Your task to perform on an android device: Search for Mexican restaurants on Maps Image 0: 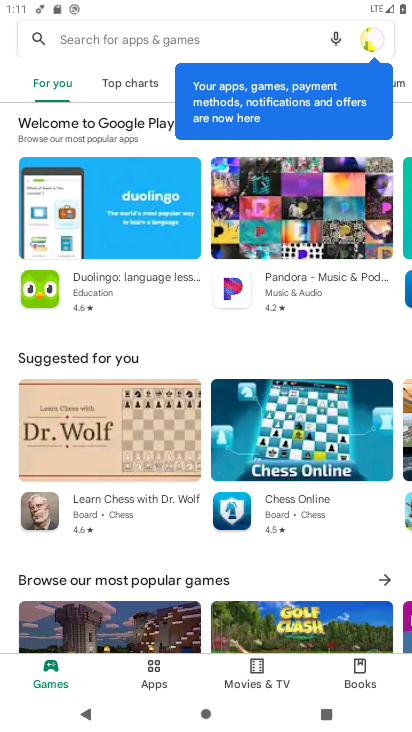
Step 0: press home button
Your task to perform on an android device: Search for Mexican restaurants on Maps Image 1: 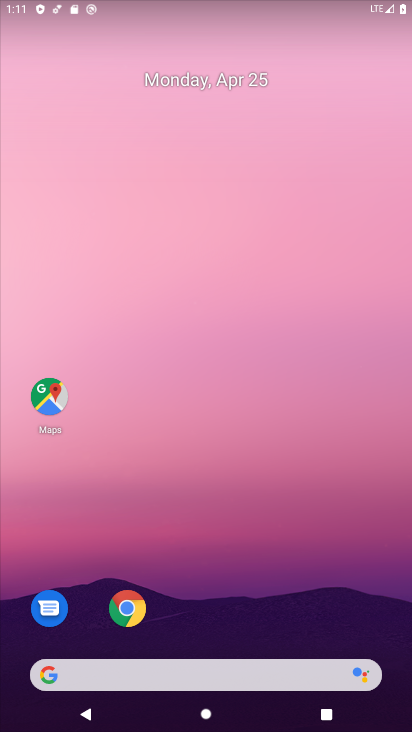
Step 1: click (37, 403)
Your task to perform on an android device: Search for Mexican restaurants on Maps Image 2: 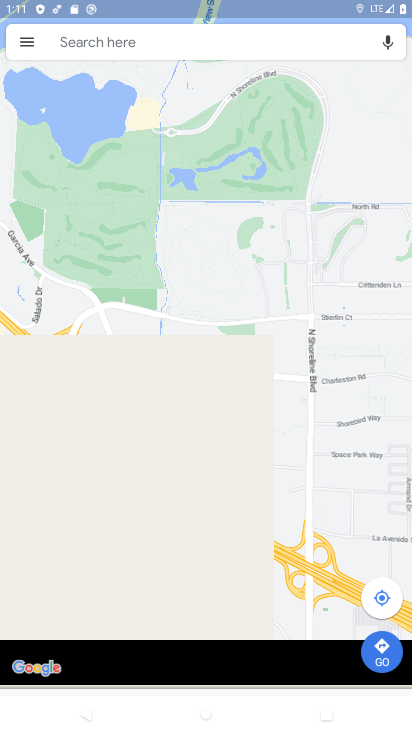
Step 2: click (195, 37)
Your task to perform on an android device: Search for Mexican restaurants on Maps Image 3: 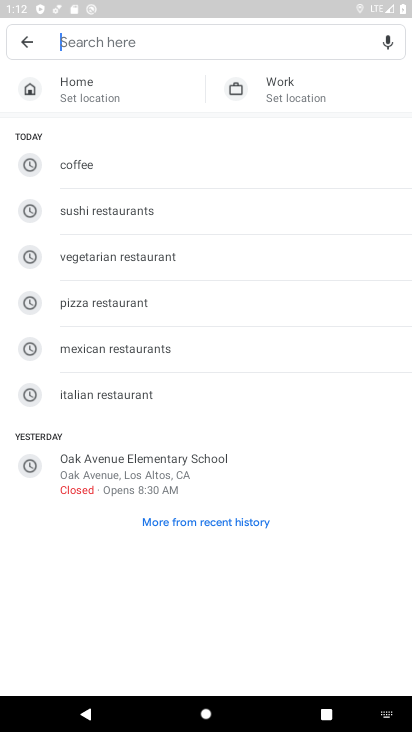
Step 3: type "mexican restrraurants"
Your task to perform on an android device: Search for Mexican restaurants on Maps Image 4: 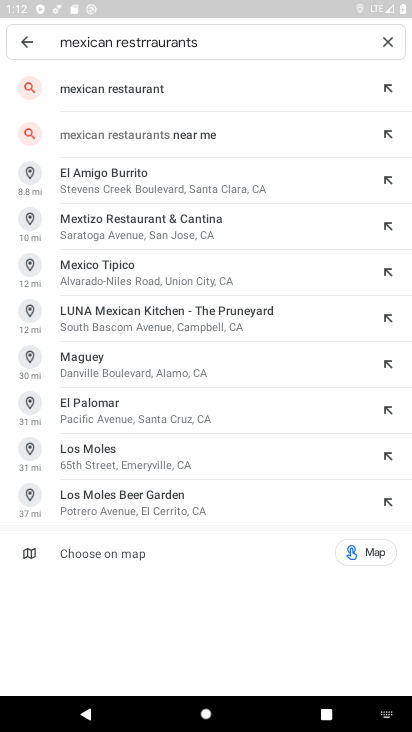
Step 4: task complete